Your task to perform on an android device: Search for flights from NYC to Barcelona Image 0: 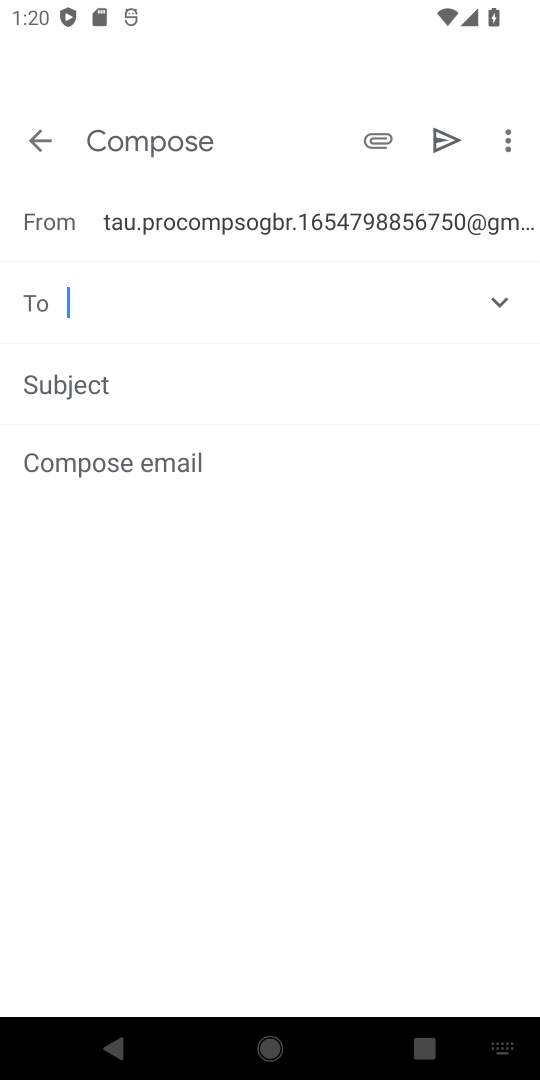
Step 0: press home button
Your task to perform on an android device: Search for flights from NYC to Barcelona Image 1: 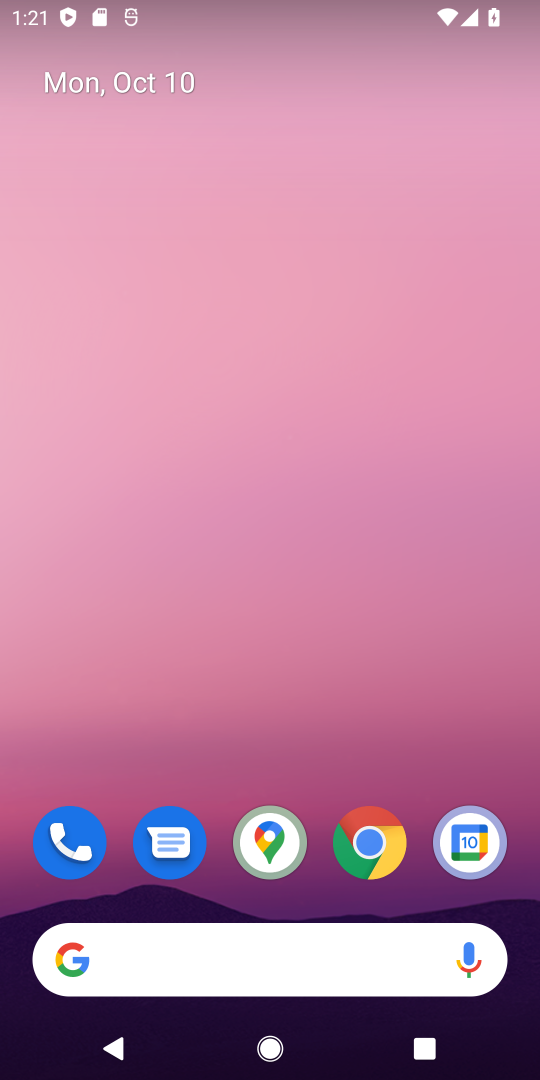
Step 1: click (385, 848)
Your task to perform on an android device: Search for flights from NYC to Barcelona Image 2: 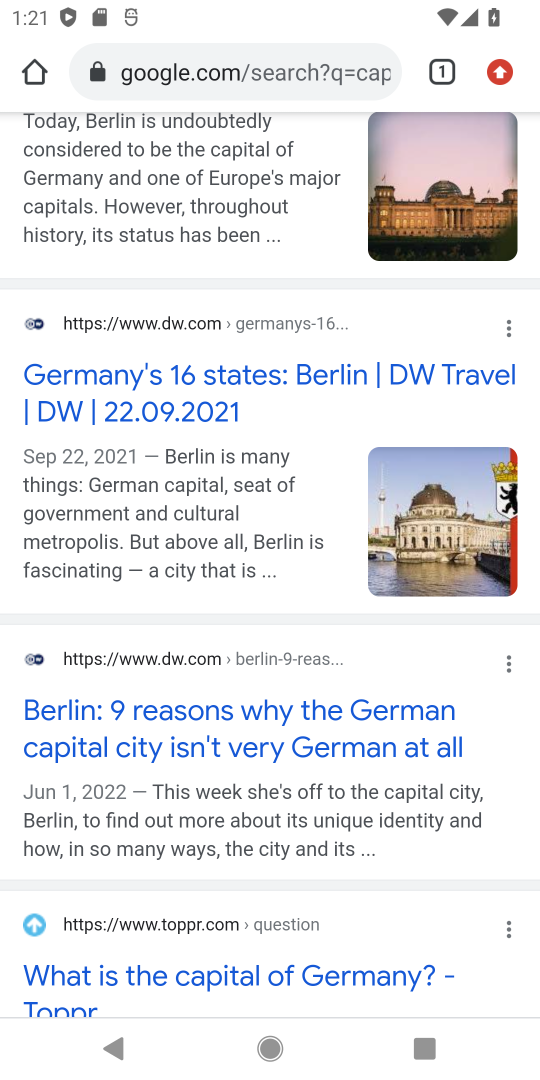
Step 2: click (226, 70)
Your task to perform on an android device: Search for flights from NYC to Barcelona Image 3: 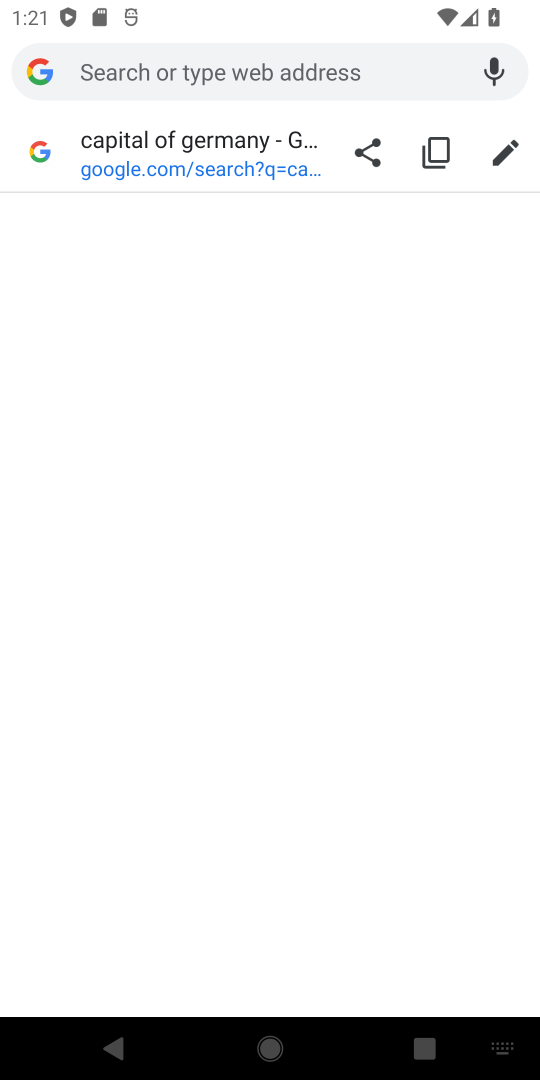
Step 3: type "flights from NYC to Barcelona"
Your task to perform on an android device: Search for flights from NYC to Barcelona Image 4: 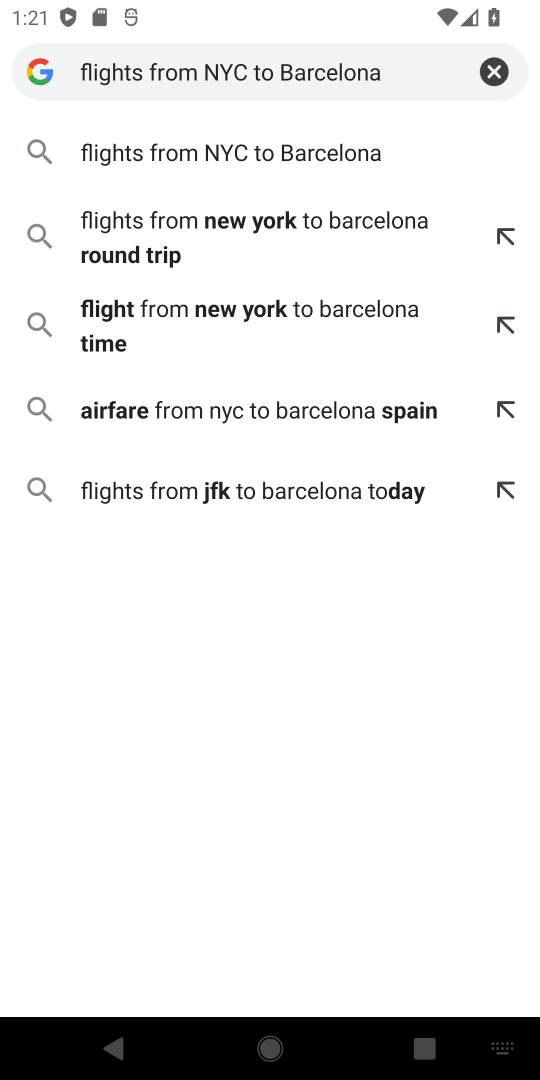
Step 4: press enter
Your task to perform on an android device: Search for flights from NYC to Barcelona Image 5: 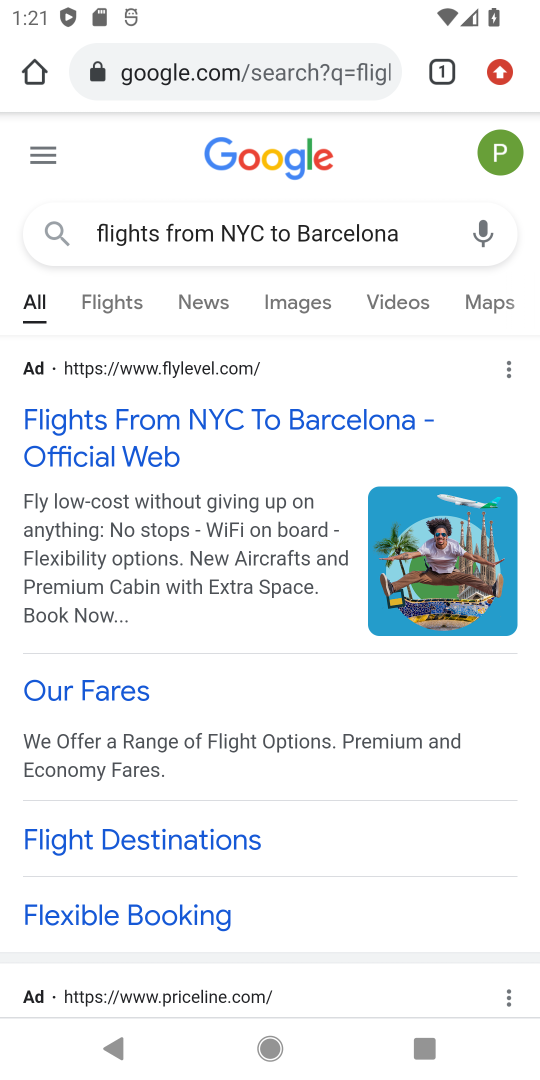
Step 5: drag from (264, 750) to (253, 288)
Your task to perform on an android device: Search for flights from NYC to Barcelona Image 6: 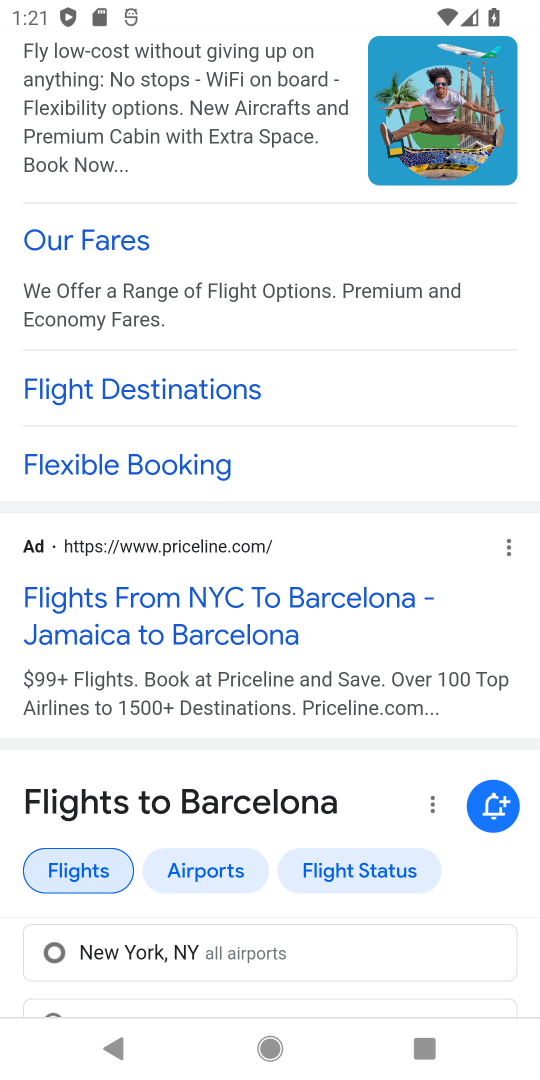
Step 6: drag from (341, 807) to (303, 285)
Your task to perform on an android device: Search for flights from NYC to Barcelona Image 7: 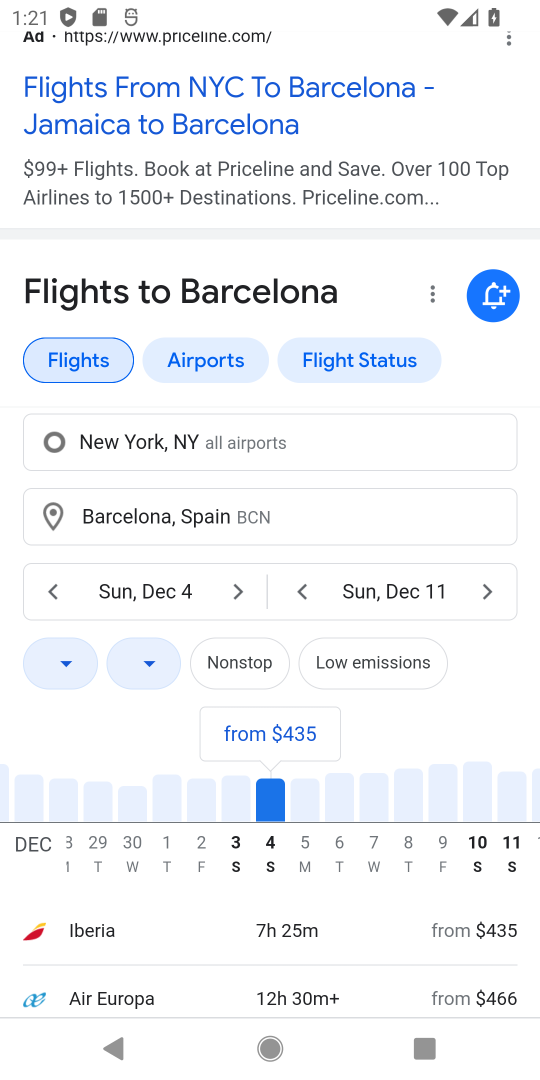
Step 7: drag from (305, 870) to (311, 547)
Your task to perform on an android device: Search for flights from NYC to Barcelona Image 8: 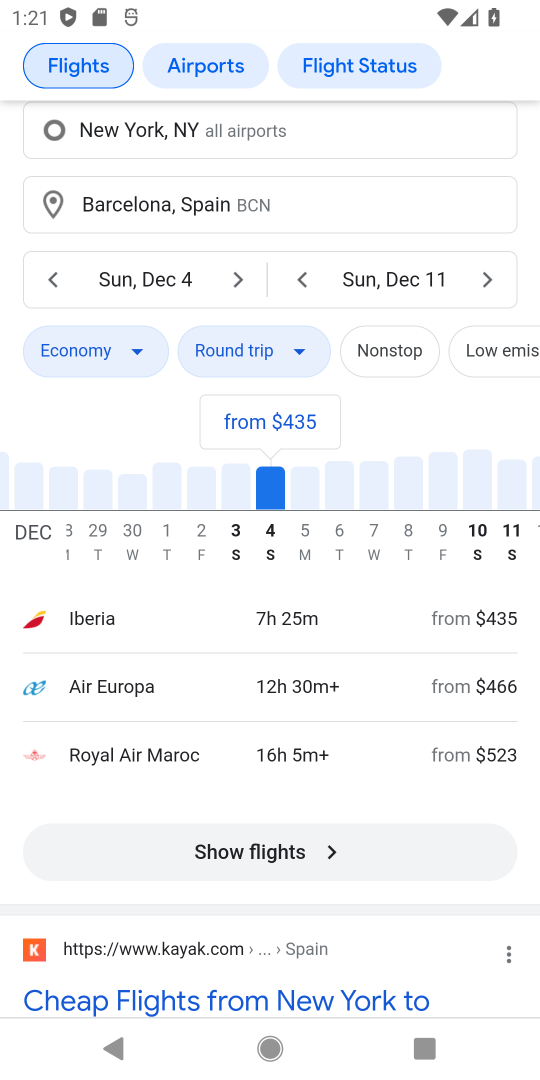
Step 8: click (330, 853)
Your task to perform on an android device: Search for flights from NYC to Barcelona Image 9: 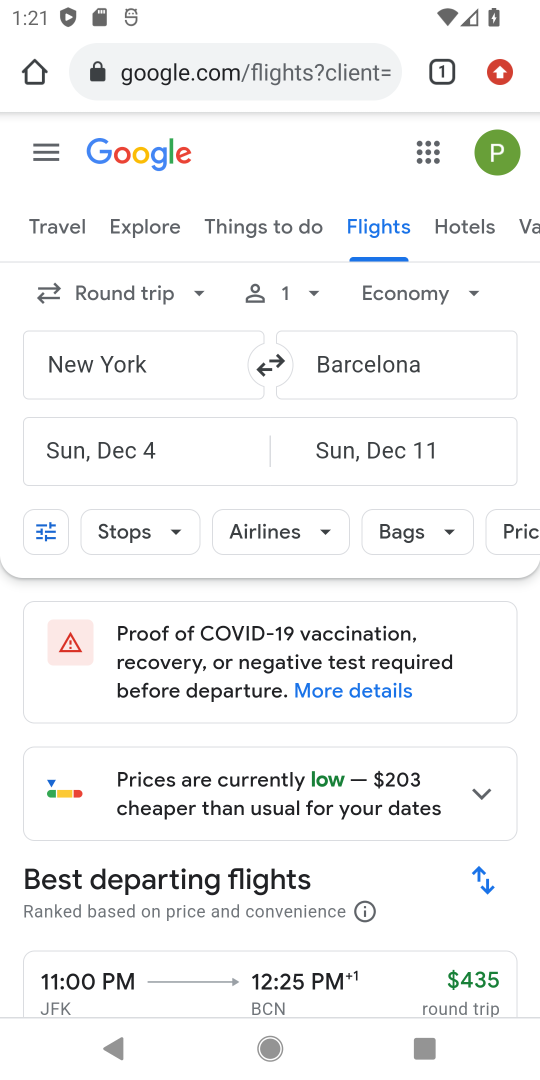
Step 9: task complete